Your task to perform on an android device: What's on my calendar today? Image 0: 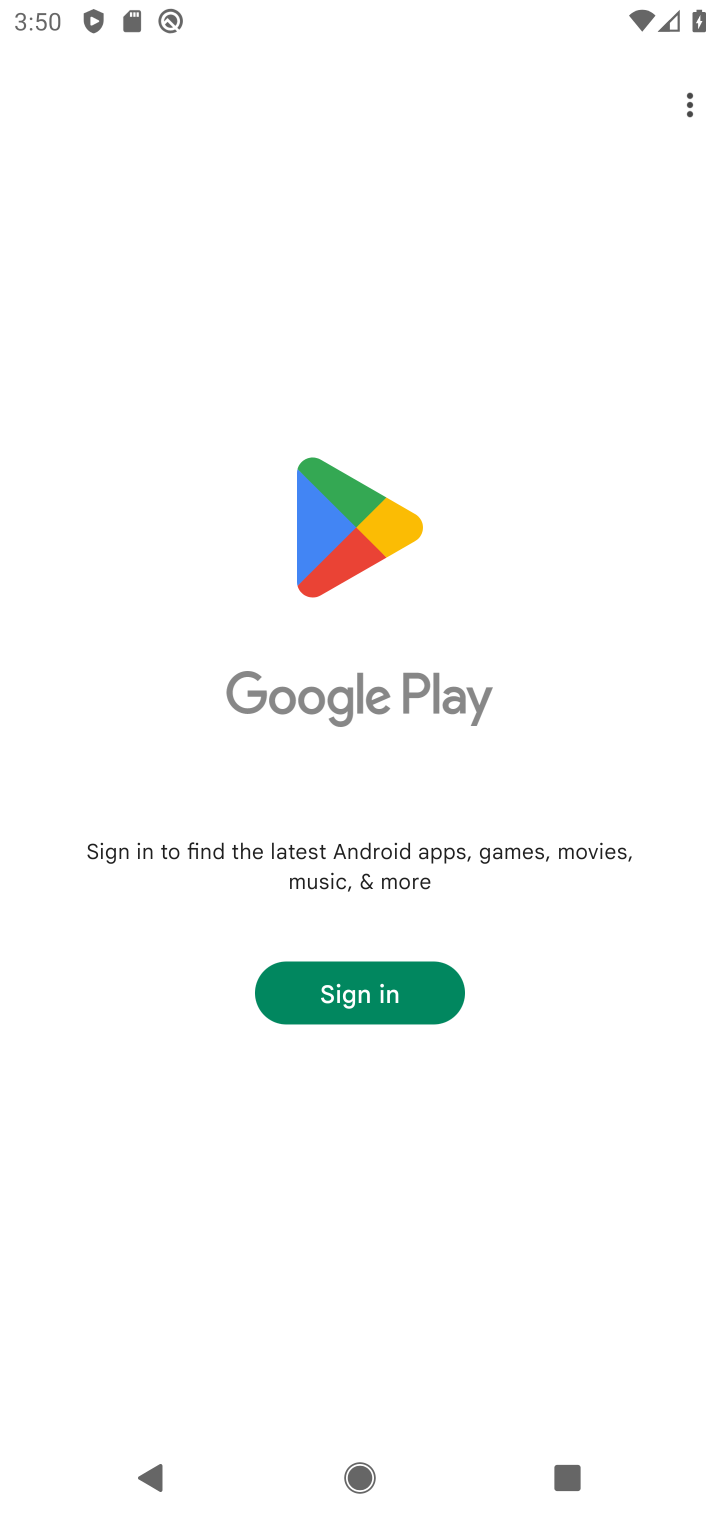
Step 0: press home button
Your task to perform on an android device: What's on my calendar today? Image 1: 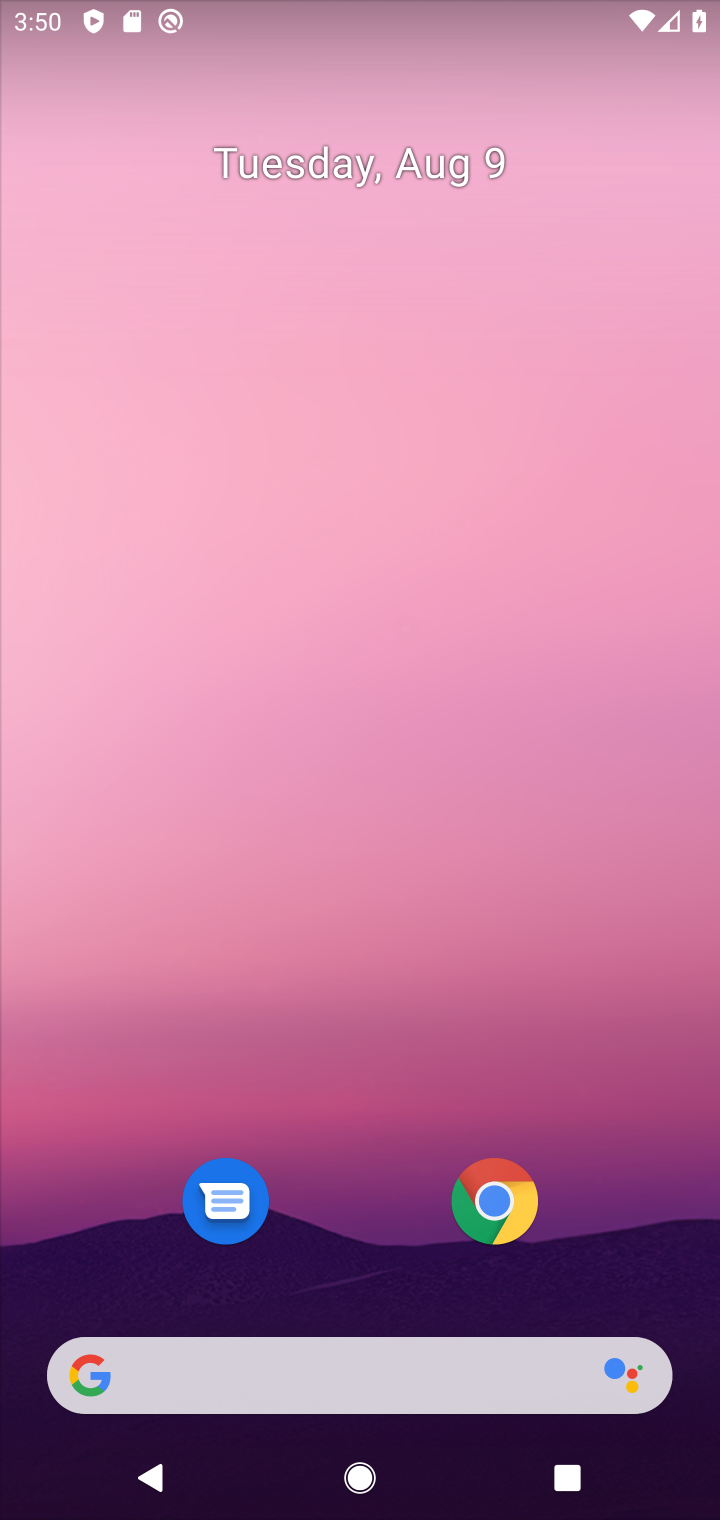
Step 1: drag from (277, 1391) to (395, 230)
Your task to perform on an android device: What's on my calendar today? Image 2: 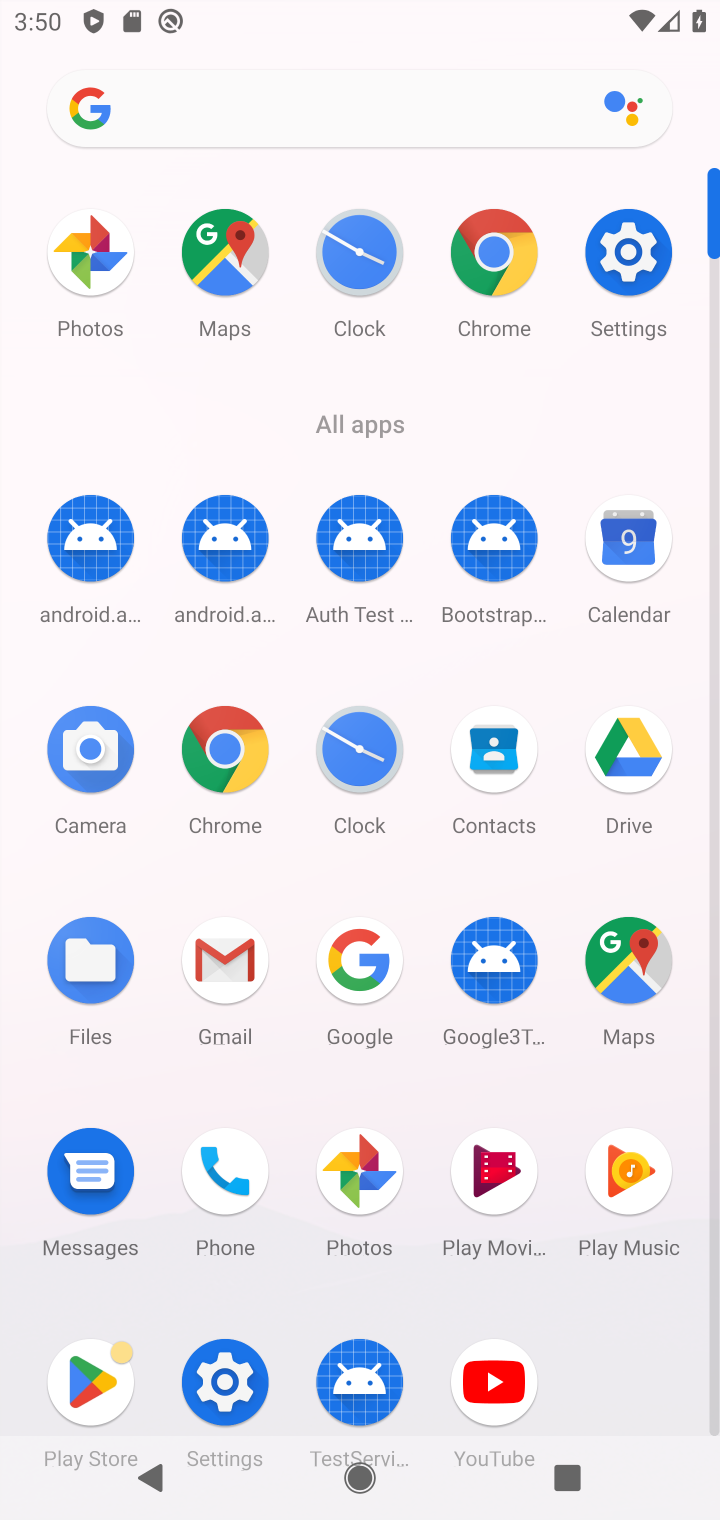
Step 2: click (630, 551)
Your task to perform on an android device: What's on my calendar today? Image 3: 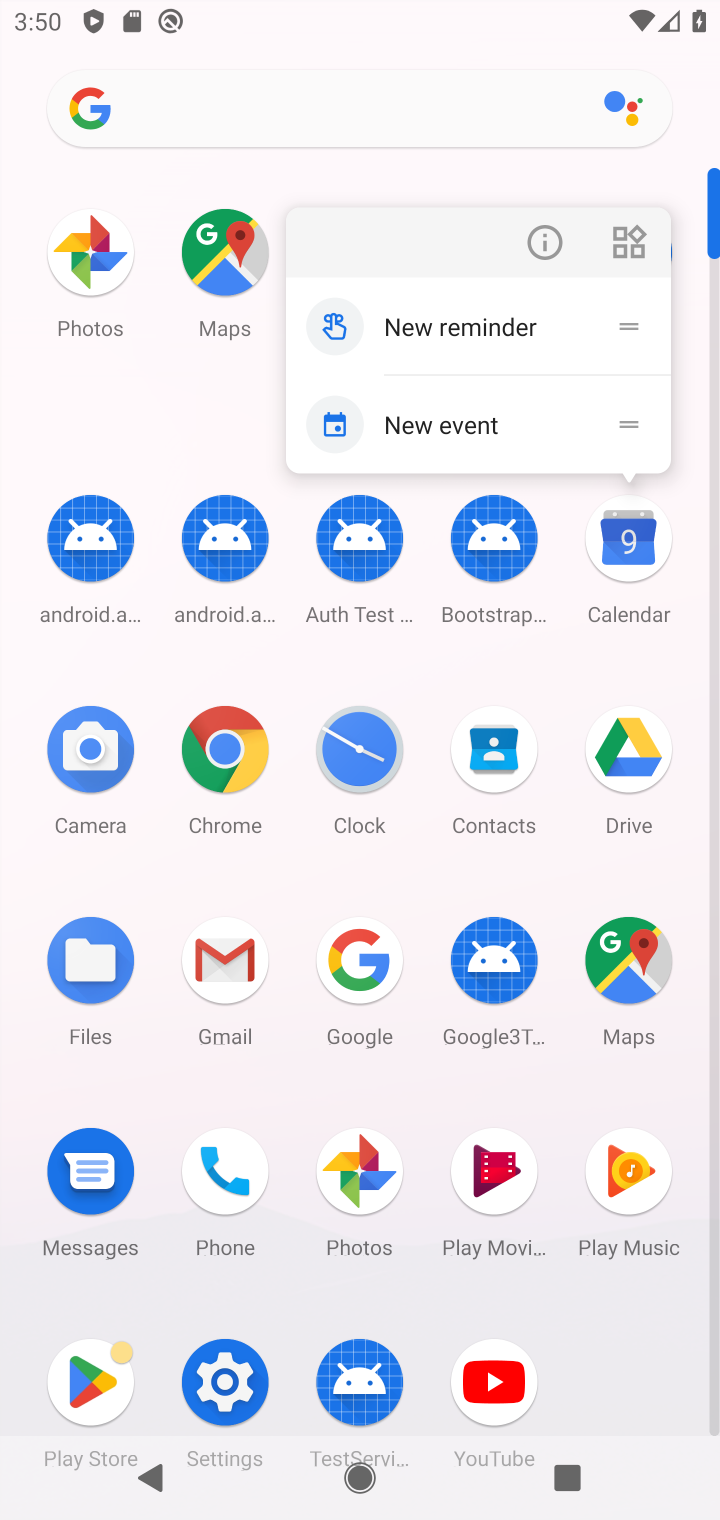
Step 3: click (630, 551)
Your task to perform on an android device: What's on my calendar today? Image 4: 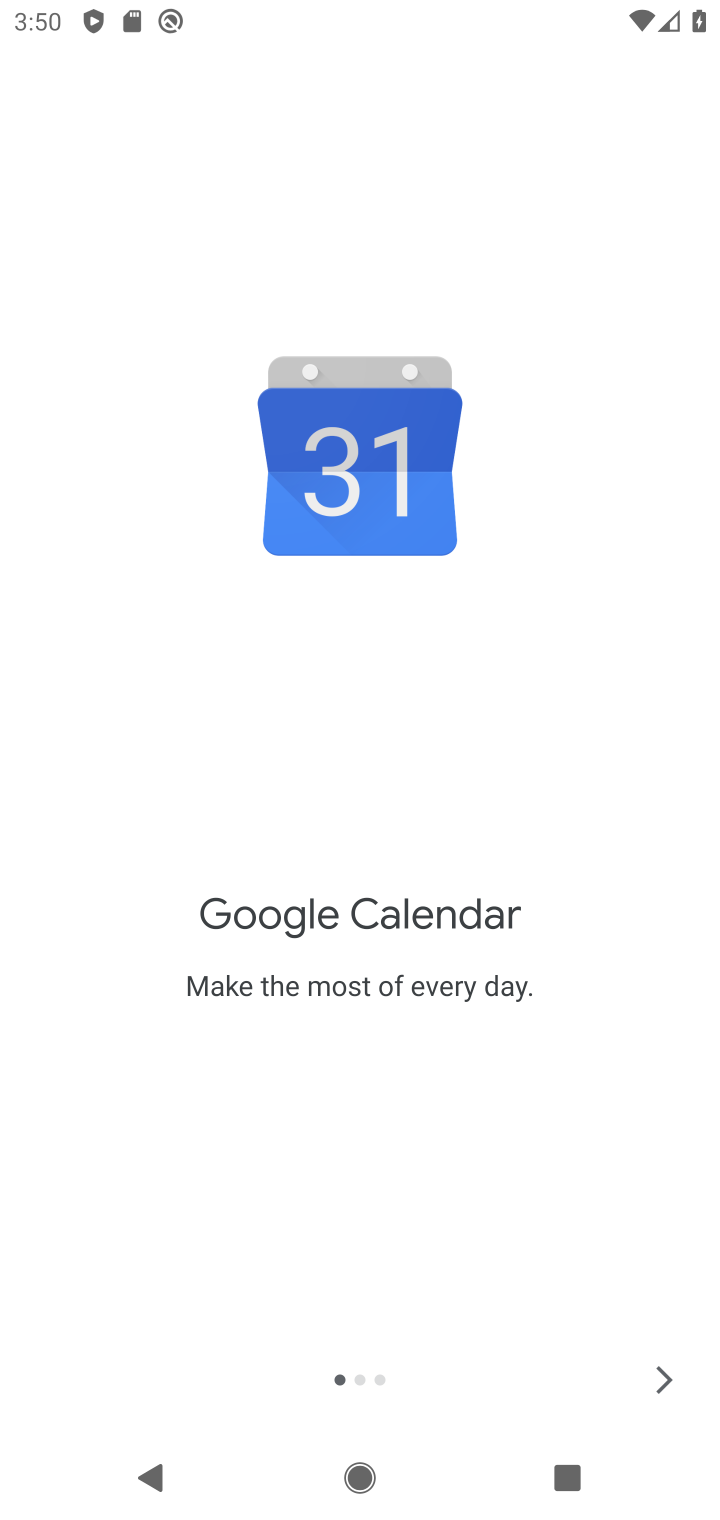
Step 4: click (663, 1371)
Your task to perform on an android device: What's on my calendar today? Image 5: 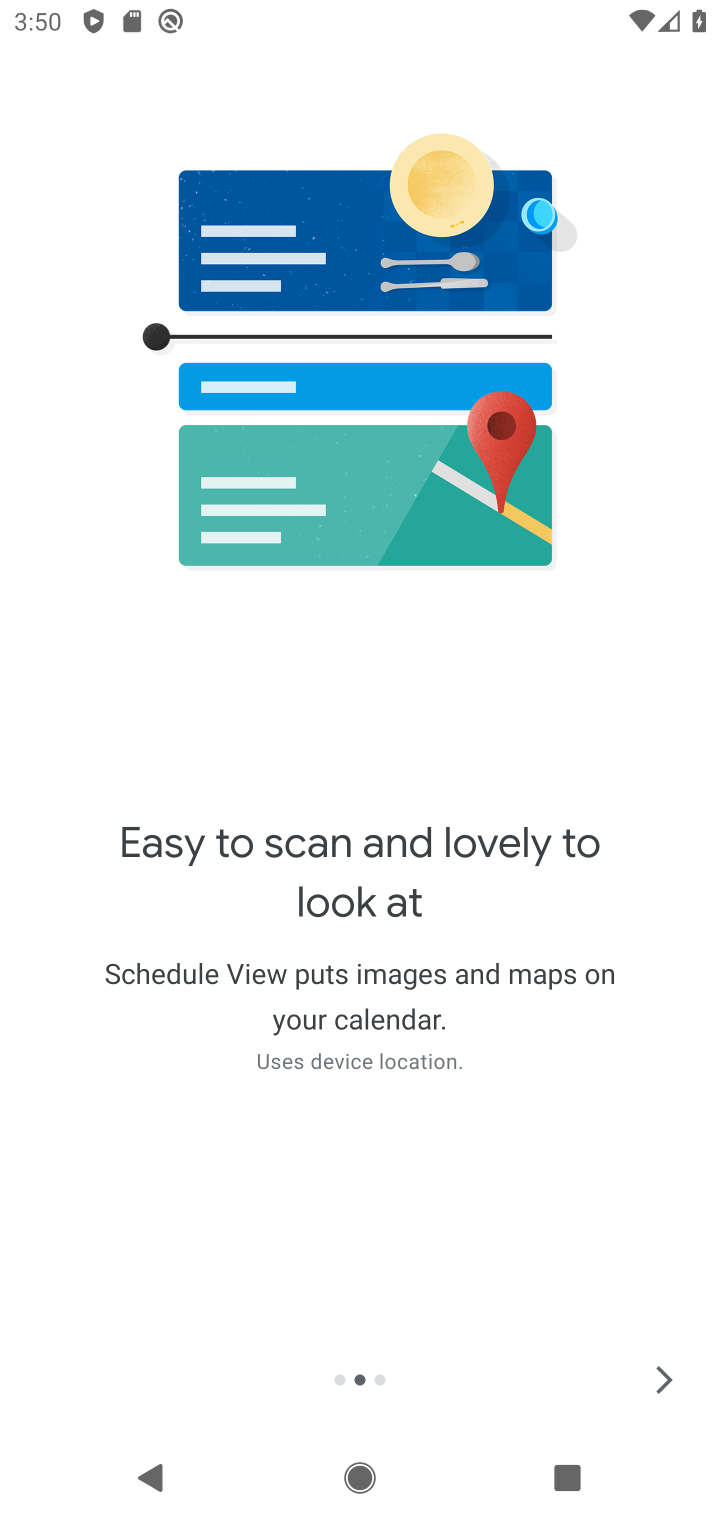
Step 5: click (663, 1371)
Your task to perform on an android device: What's on my calendar today? Image 6: 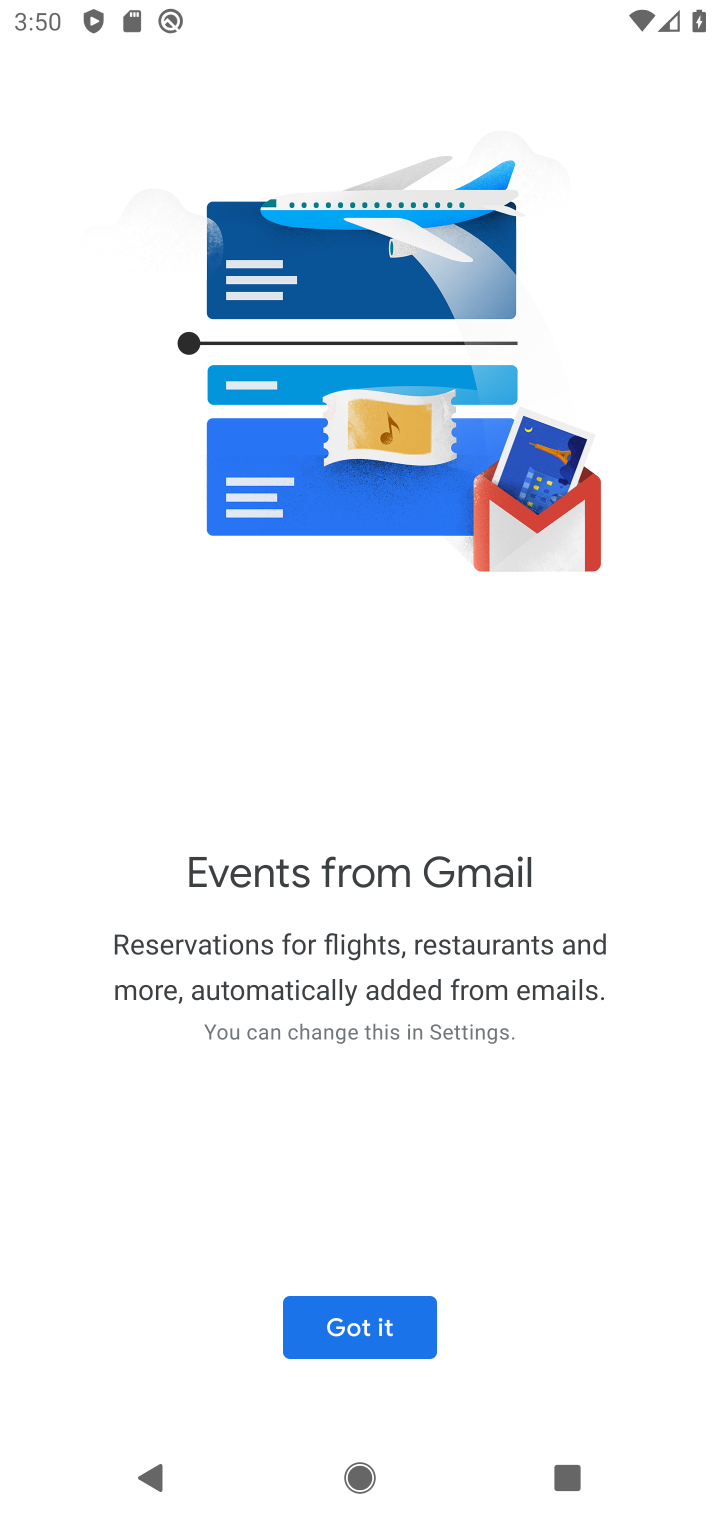
Step 6: click (411, 1316)
Your task to perform on an android device: What's on my calendar today? Image 7: 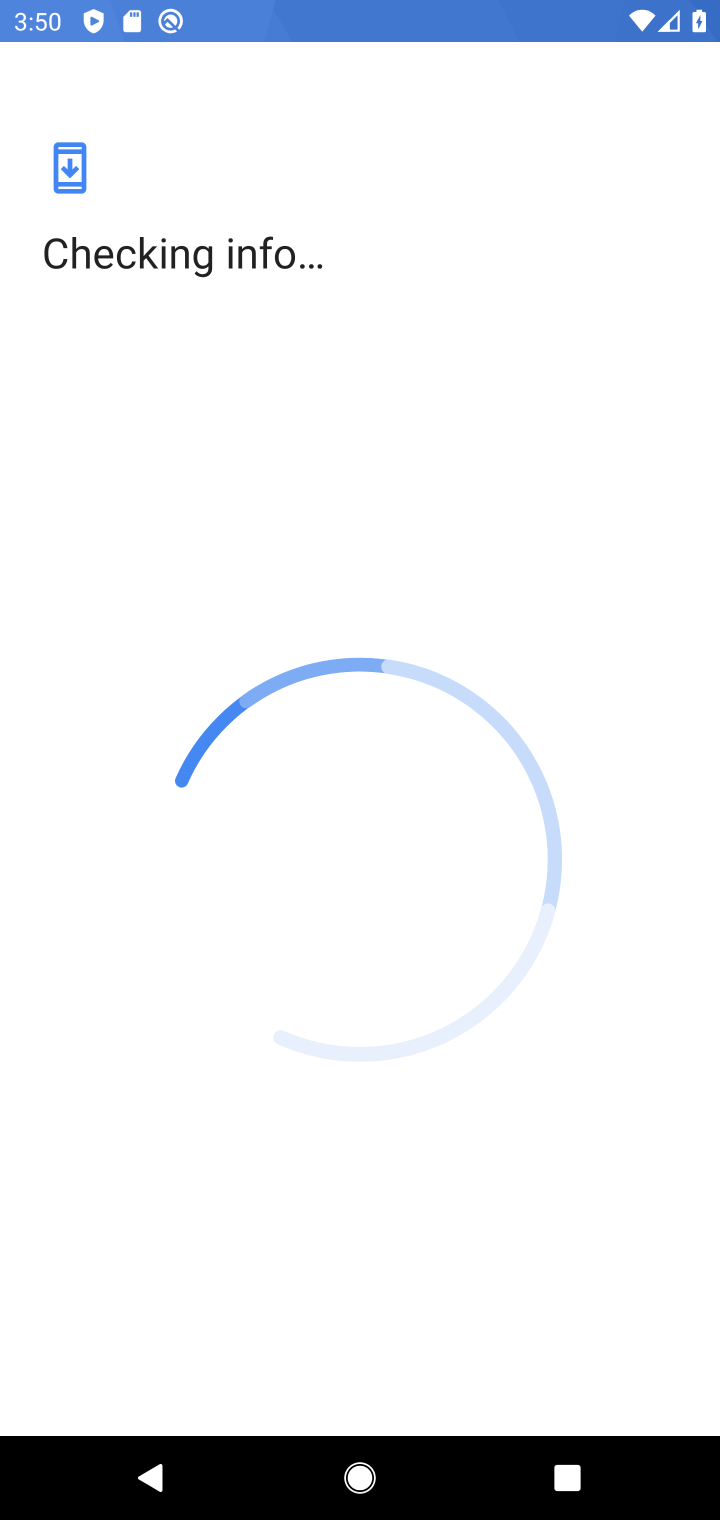
Step 7: press back button
Your task to perform on an android device: What's on my calendar today? Image 8: 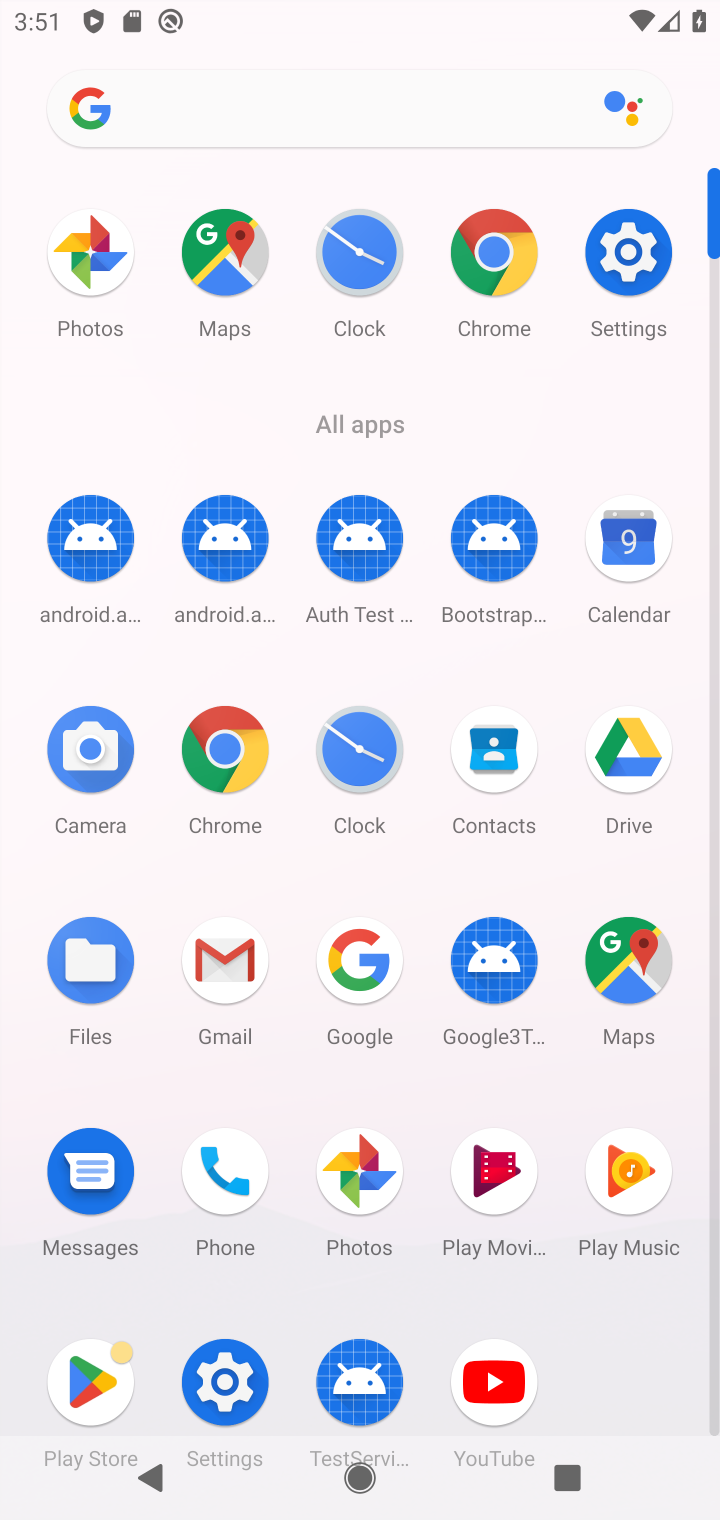
Step 8: click (634, 539)
Your task to perform on an android device: What's on my calendar today? Image 9: 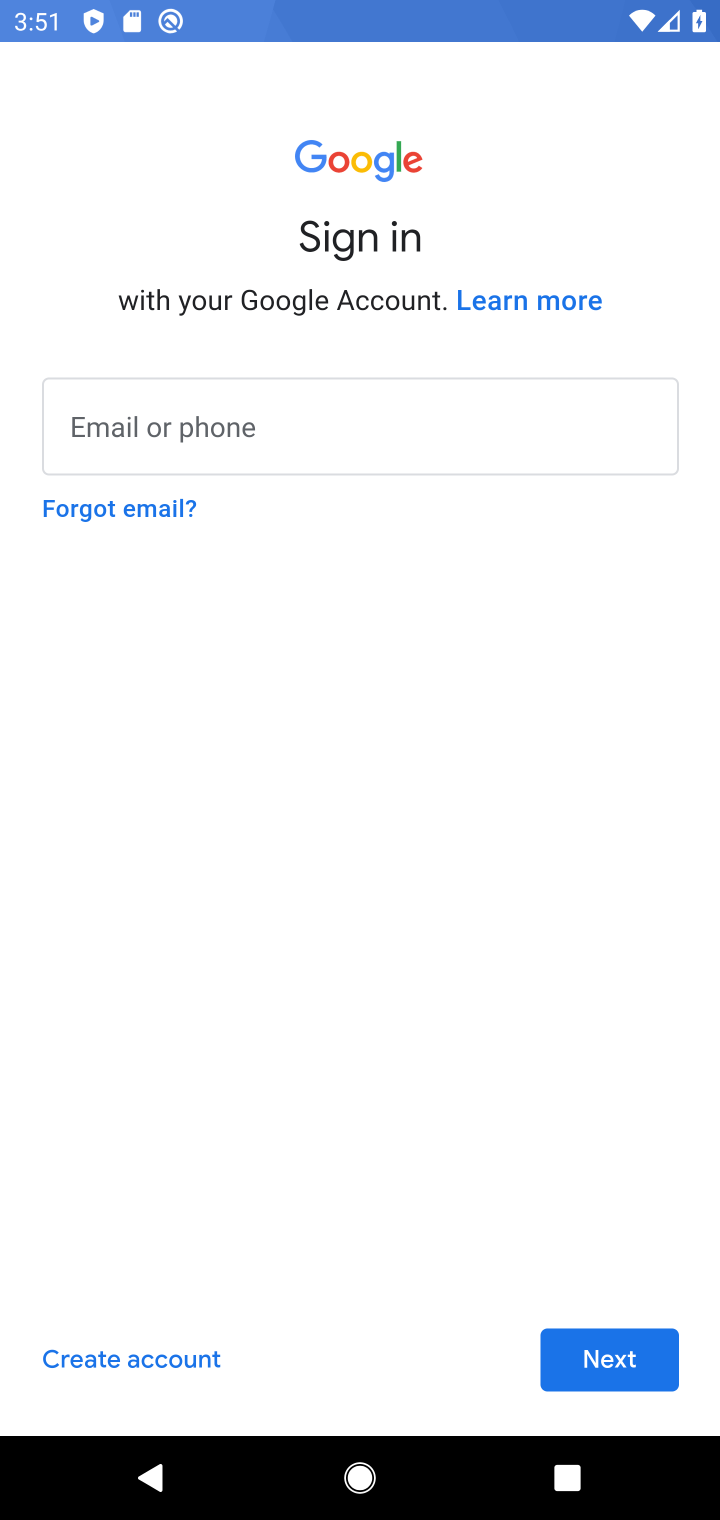
Step 9: task complete